Your task to perform on an android device: open app "Facebook Lite" (install if not already installed), go to login, and select forgot password Image 0: 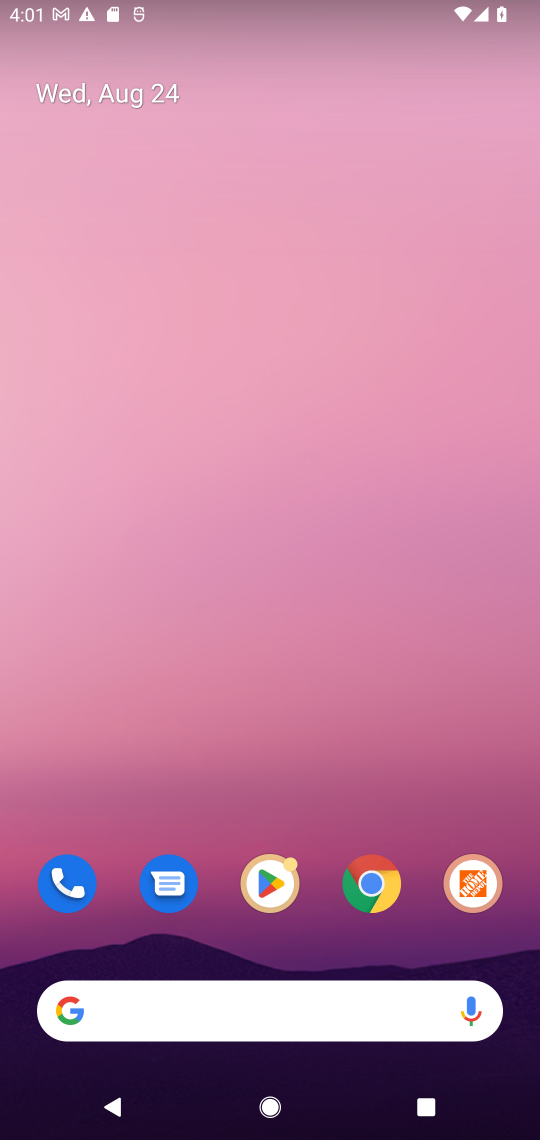
Step 0: drag from (230, 669) to (230, 278)
Your task to perform on an android device: open app "Facebook Lite" (install if not already installed), go to login, and select forgot password Image 1: 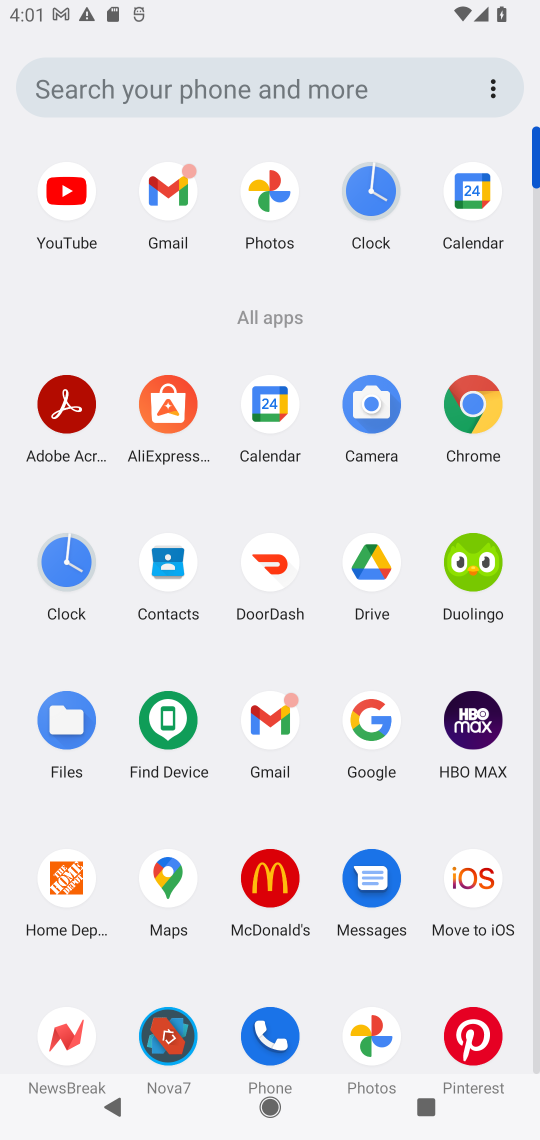
Step 1: drag from (250, 977) to (254, 464)
Your task to perform on an android device: open app "Facebook Lite" (install if not already installed), go to login, and select forgot password Image 2: 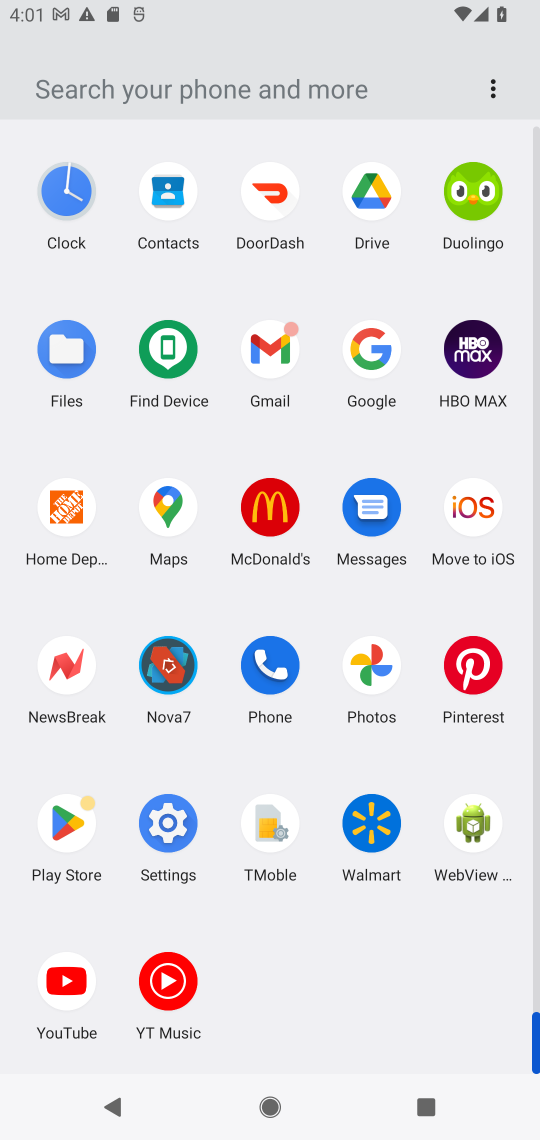
Step 2: click (68, 814)
Your task to perform on an android device: open app "Facebook Lite" (install if not already installed), go to login, and select forgot password Image 3: 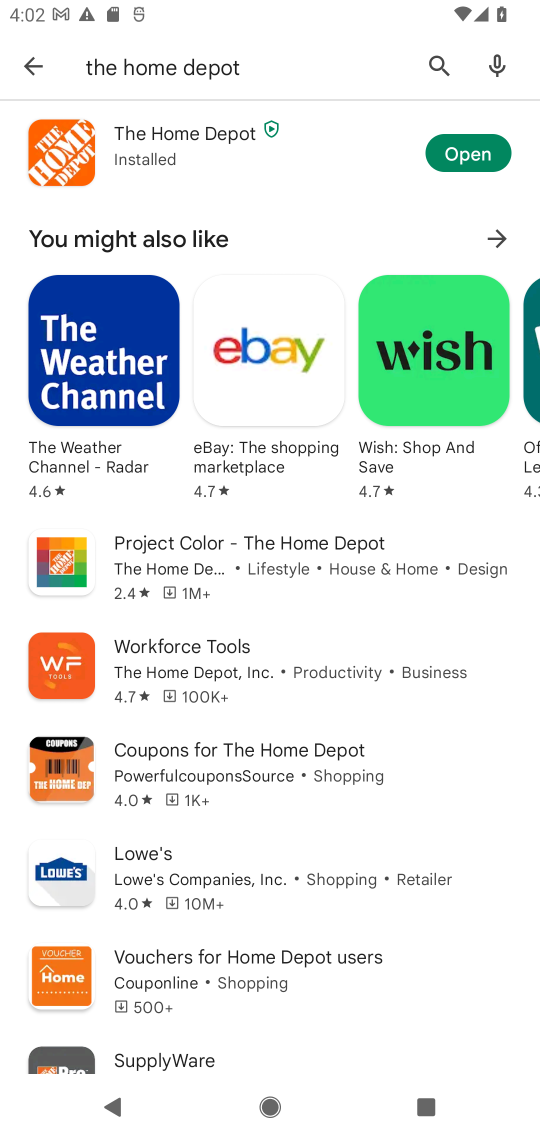
Step 3: click (435, 53)
Your task to perform on an android device: open app "Facebook Lite" (install if not already installed), go to login, and select forgot password Image 4: 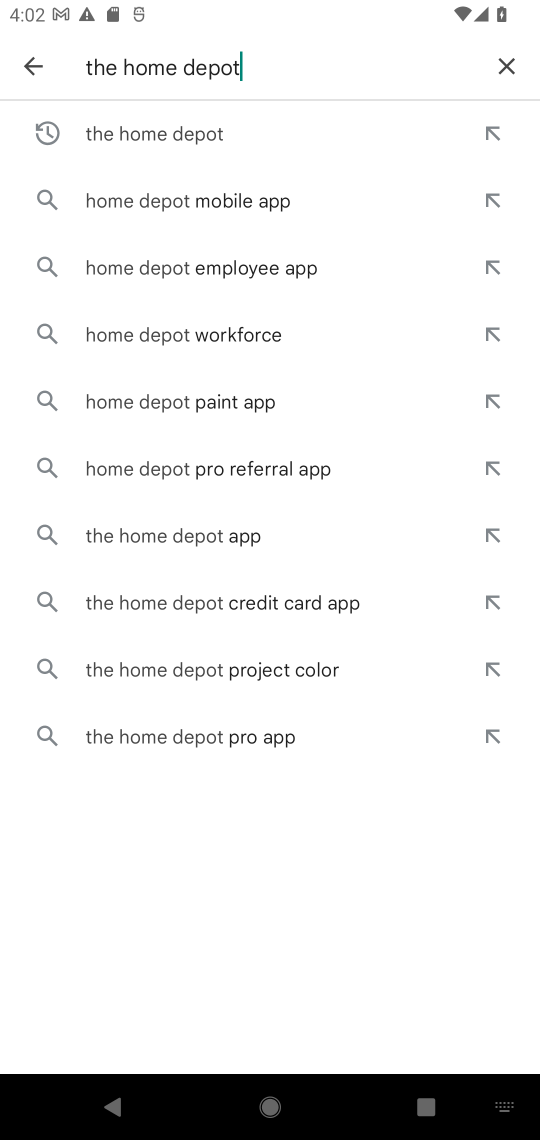
Step 4: click (501, 66)
Your task to perform on an android device: open app "Facebook Lite" (install if not already installed), go to login, and select forgot password Image 5: 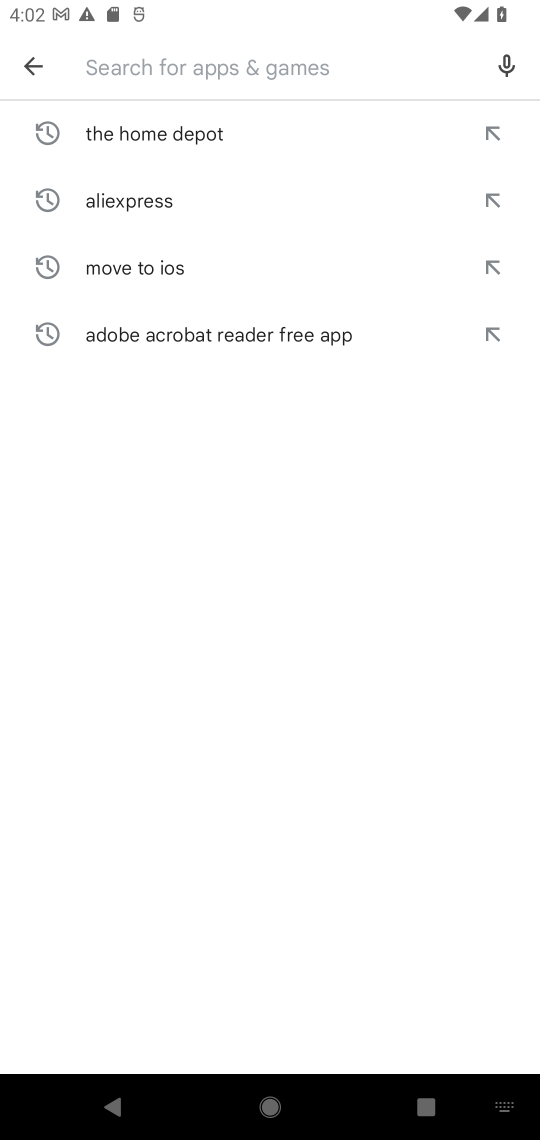
Step 5: type "Facebook Lite"
Your task to perform on an android device: open app "Facebook Lite" (install if not already installed), go to login, and select forgot password Image 6: 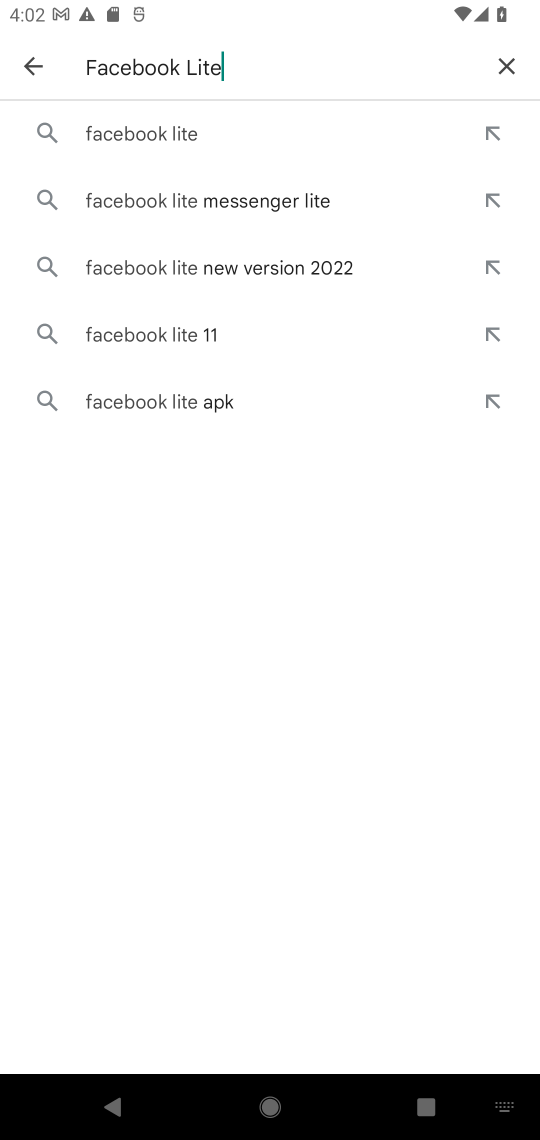
Step 6: click (166, 132)
Your task to perform on an android device: open app "Facebook Lite" (install if not already installed), go to login, and select forgot password Image 7: 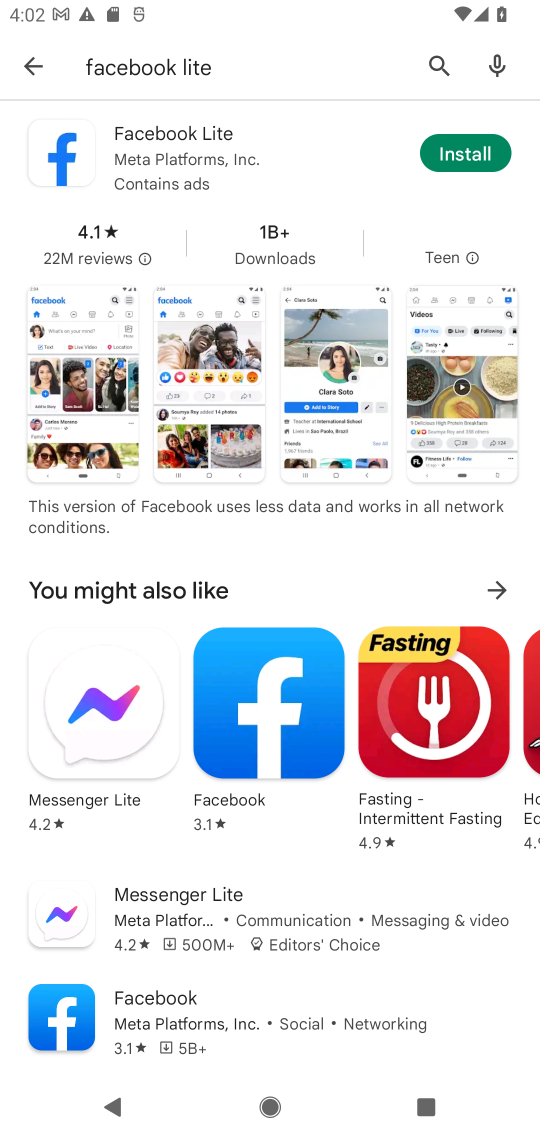
Step 7: click (490, 145)
Your task to perform on an android device: open app "Facebook Lite" (install if not already installed), go to login, and select forgot password Image 8: 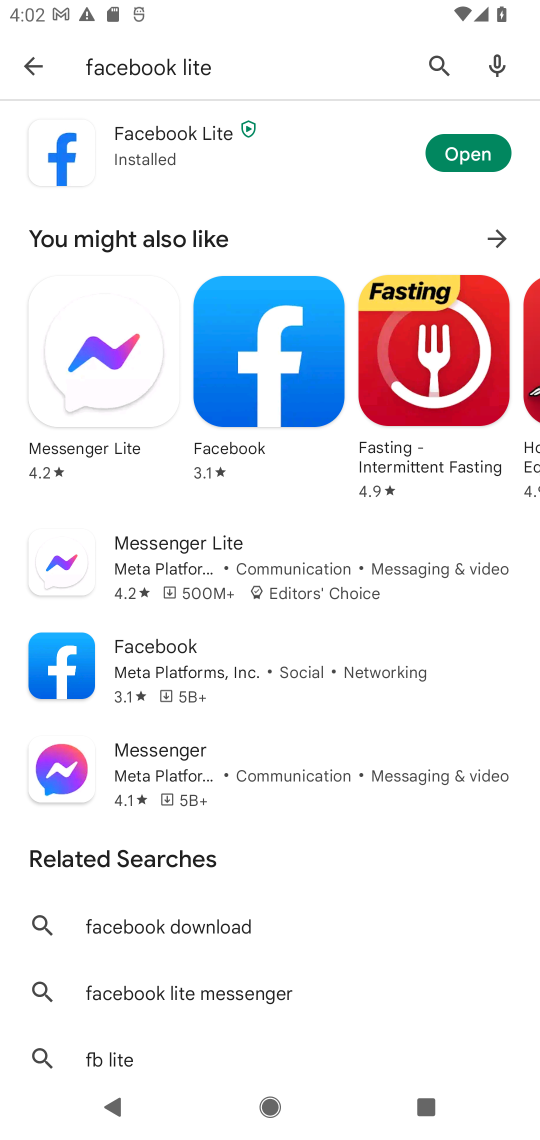
Step 8: click (486, 149)
Your task to perform on an android device: open app "Facebook Lite" (install if not already installed), go to login, and select forgot password Image 9: 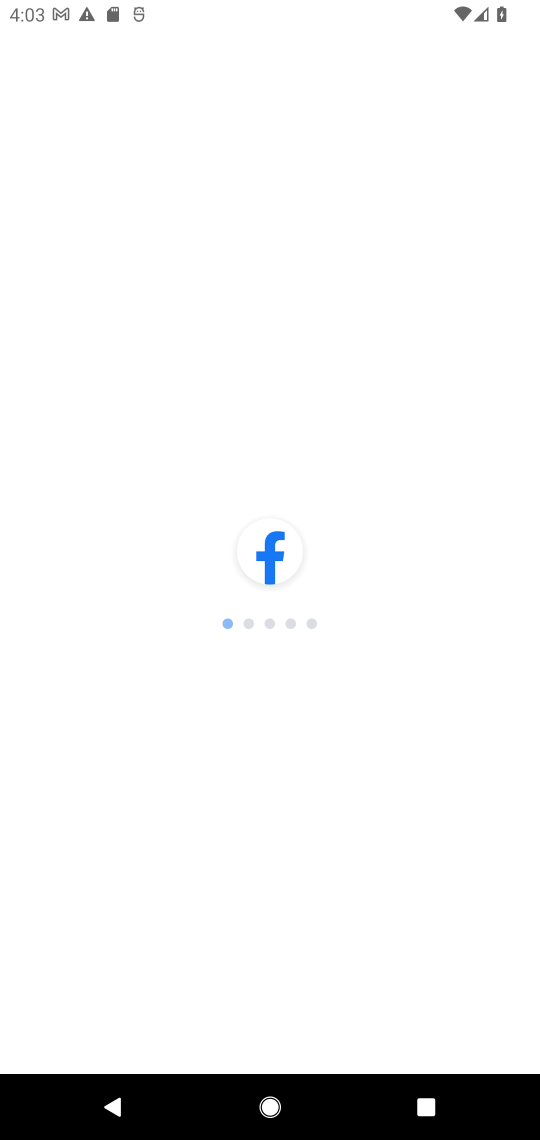
Step 9: task complete